Your task to perform on an android device: toggle sleep mode Image 0: 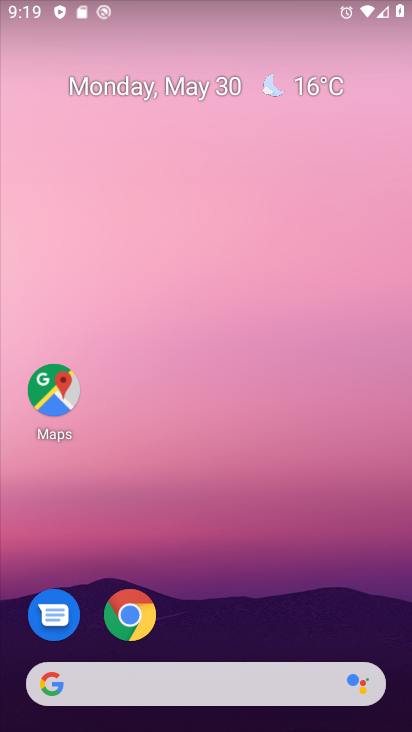
Step 0: drag from (178, 557) to (300, 109)
Your task to perform on an android device: toggle sleep mode Image 1: 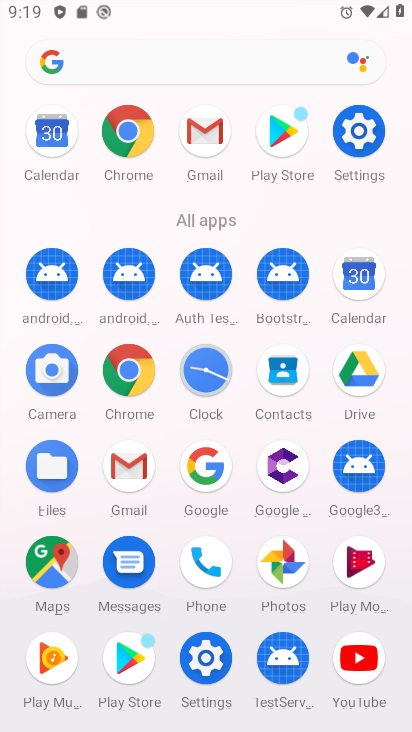
Step 1: click (356, 143)
Your task to perform on an android device: toggle sleep mode Image 2: 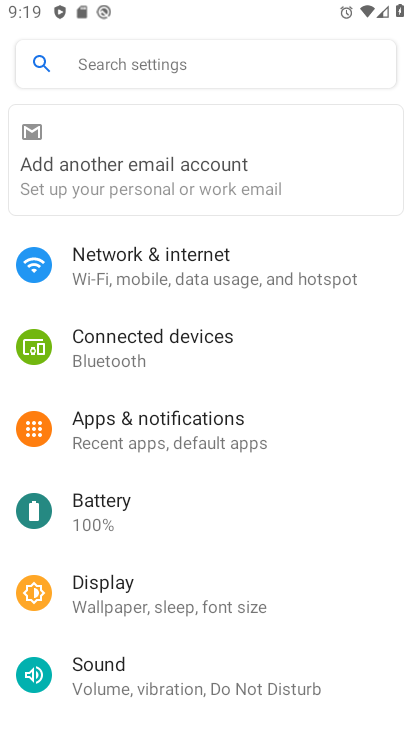
Step 2: drag from (246, 253) to (220, 678)
Your task to perform on an android device: toggle sleep mode Image 3: 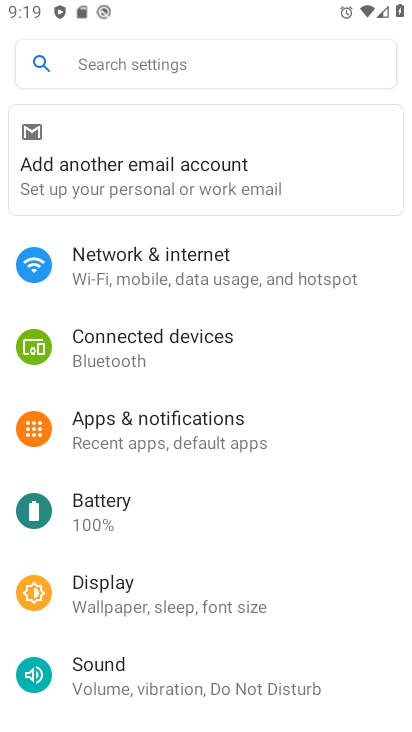
Step 3: click (167, 66)
Your task to perform on an android device: toggle sleep mode Image 4: 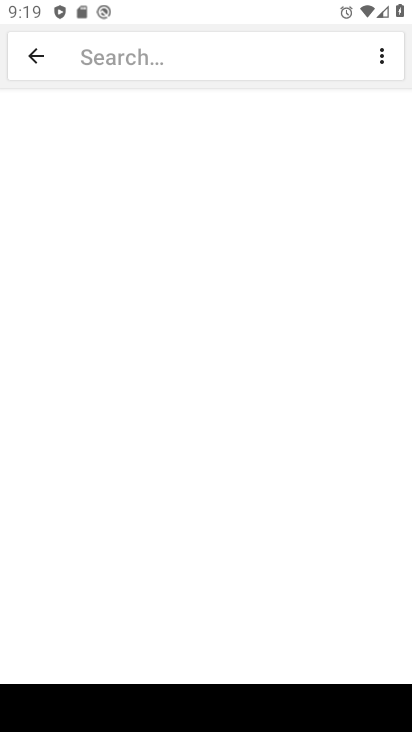
Step 4: type "sleep mode"
Your task to perform on an android device: toggle sleep mode Image 5: 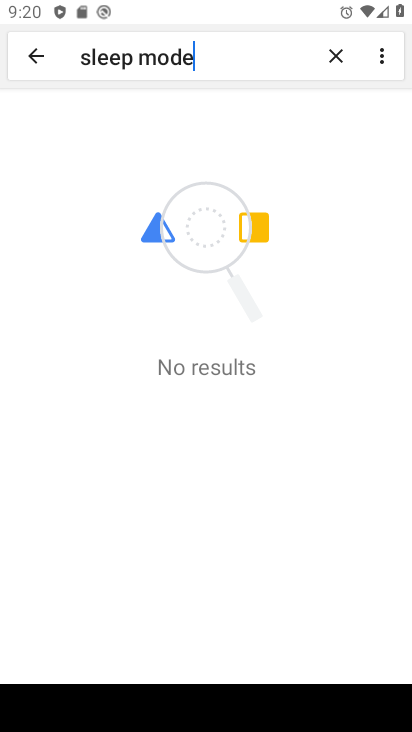
Step 5: task complete